Your task to perform on an android device: Open the Play Movies app and select the watchlist tab. Image 0: 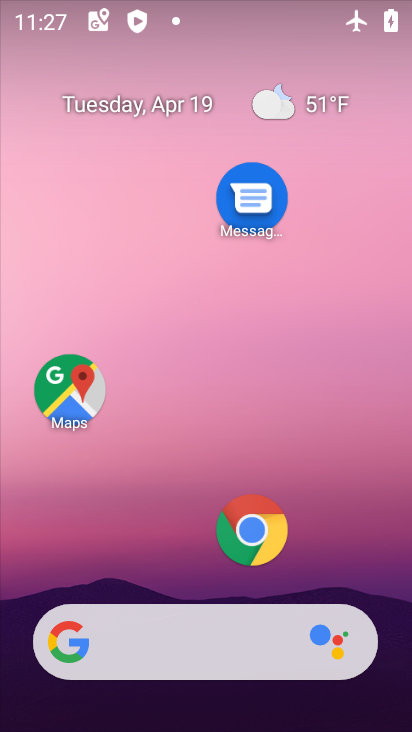
Step 0: drag from (178, 484) to (313, 61)
Your task to perform on an android device: Open the Play Movies app and select the watchlist tab. Image 1: 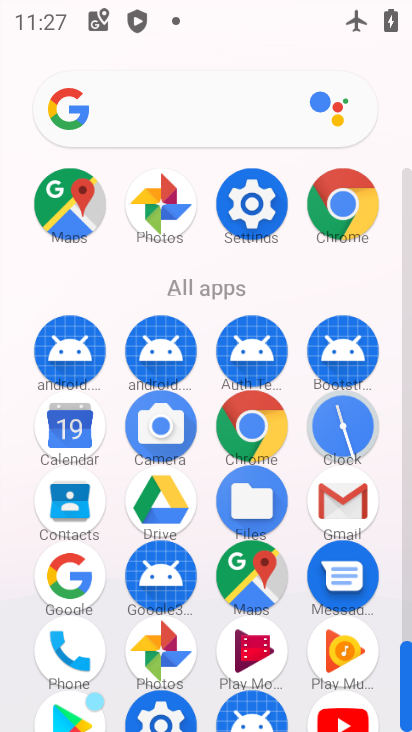
Step 1: click (246, 660)
Your task to perform on an android device: Open the Play Movies app and select the watchlist tab. Image 2: 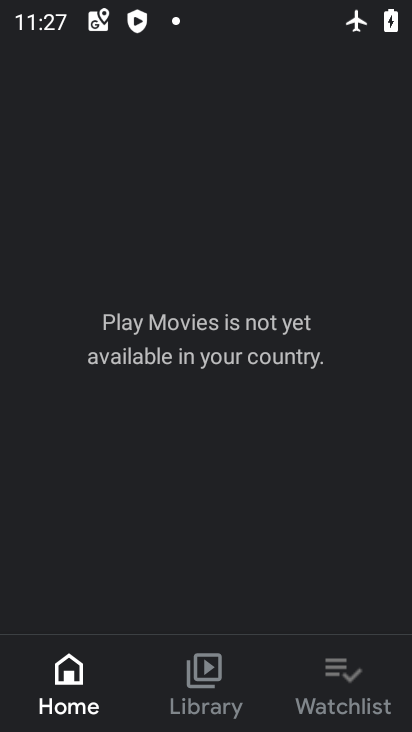
Step 2: click (322, 677)
Your task to perform on an android device: Open the Play Movies app and select the watchlist tab. Image 3: 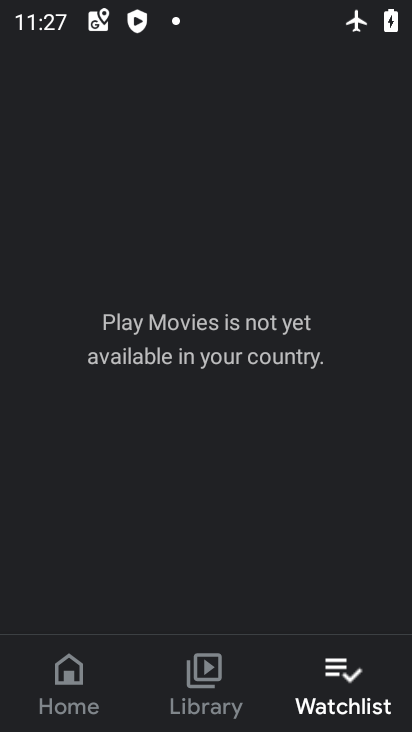
Step 3: task complete